Your task to perform on an android device: turn on showing notifications on the lock screen Image 0: 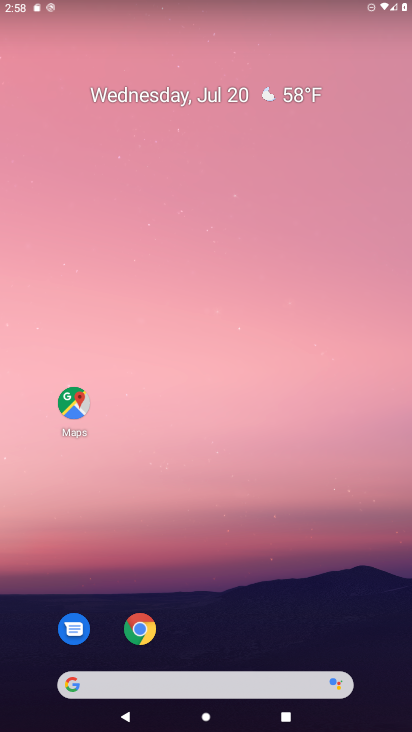
Step 0: press home button
Your task to perform on an android device: turn on showing notifications on the lock screen Image 1: 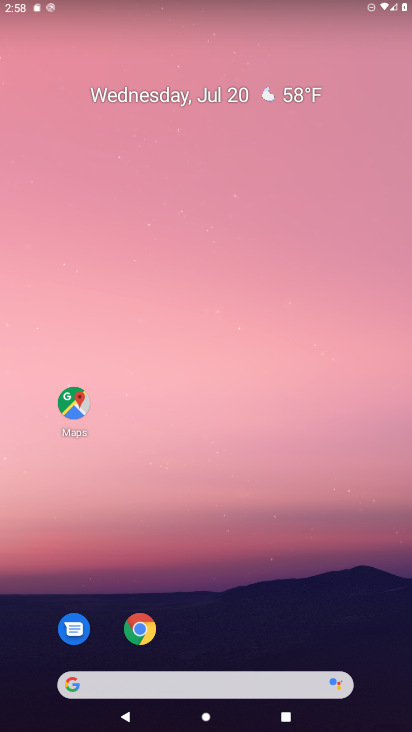
Step 1: drag from (248, 601) to (83, 87)
Your task to perform on an android device: turn on showing notifications on the lock screen Image 2: 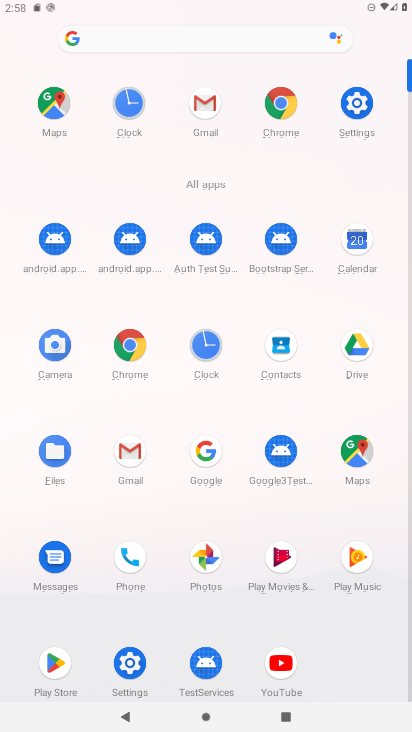
Step 2: click (111, 655)
Your task to perform on an android device: turn on showing notifications on the lock screen Image 3: 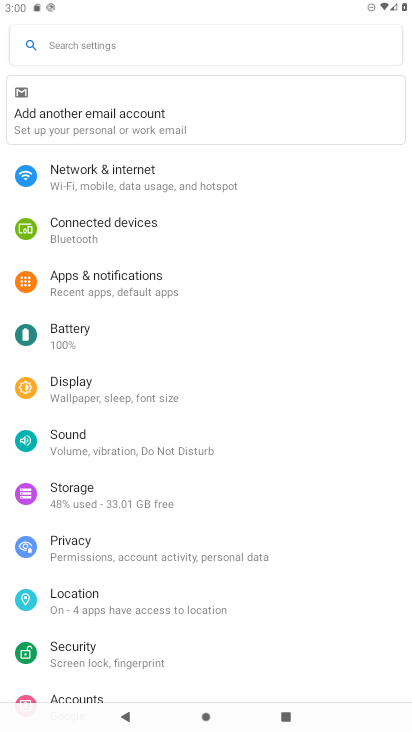
Step 3: drag from (135, 643) to (117, 486)
Your task to perform on an android device: turn on showing notifications on the lock screen Image 4: 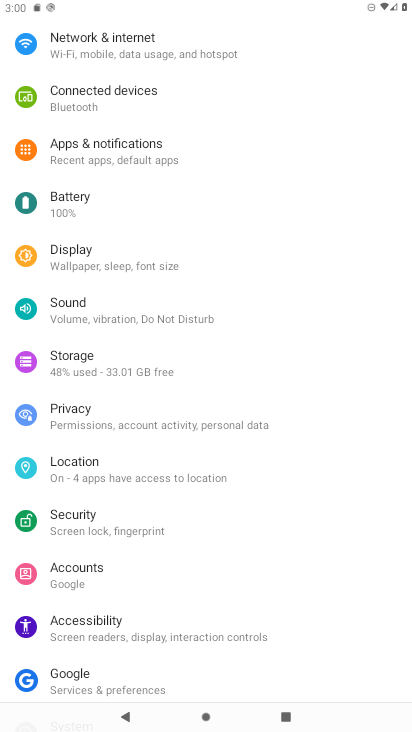
Step 4: click (114, 138)
Your task to perform on an android device: turn on showing notifications on the lock screen Image 5: 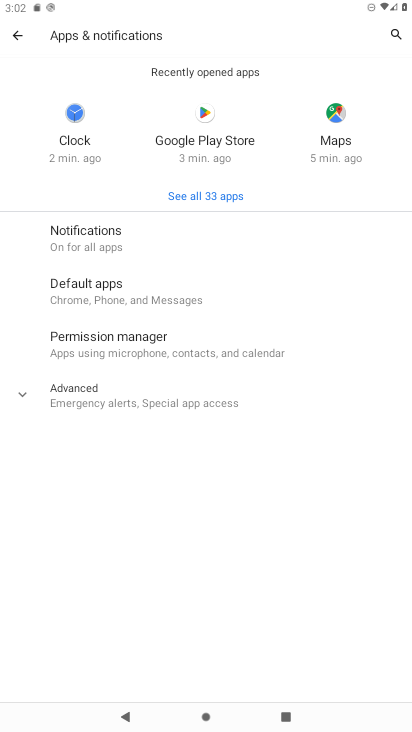
Step 5: click (45, 248)
Your task to perform on an android device: turn on showing notifications on the lock screen Image 6: 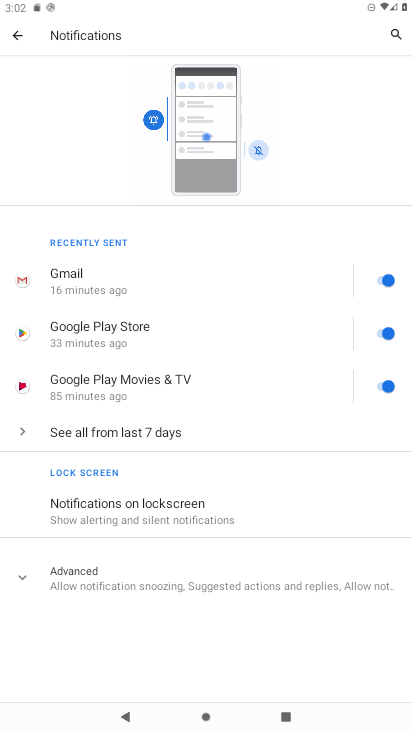
Step 6: click (182, 510)
Your task to perform on an android device: turn on showing notifications on the lock screen Image 7: 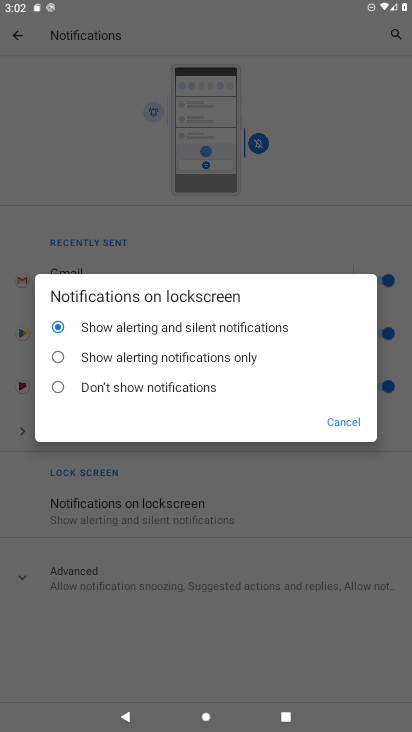
Step 7: task complete